Your task to perform on an android device: Go to privacy settings Image 0: 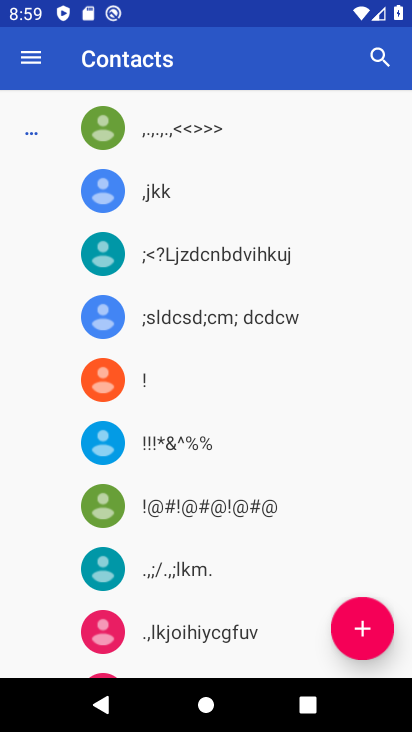
Step 0: press home button
Your task to perform on an android device: Go to privacy settings Image 1: 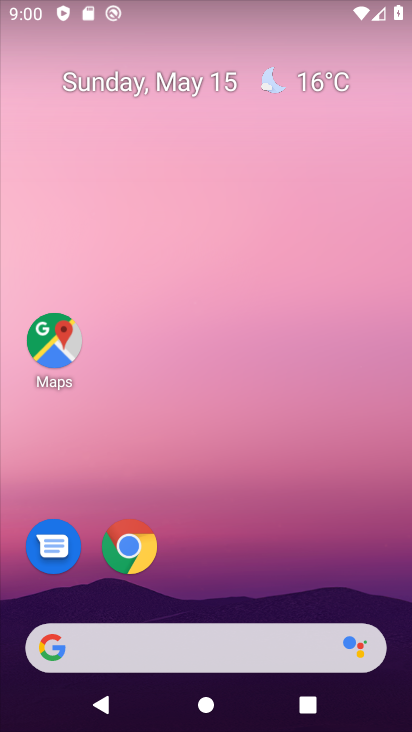
Step 1: drag from (221, 628) to (317, 178)
Your task to perform on an android device: Go to privacy settings Image 2: 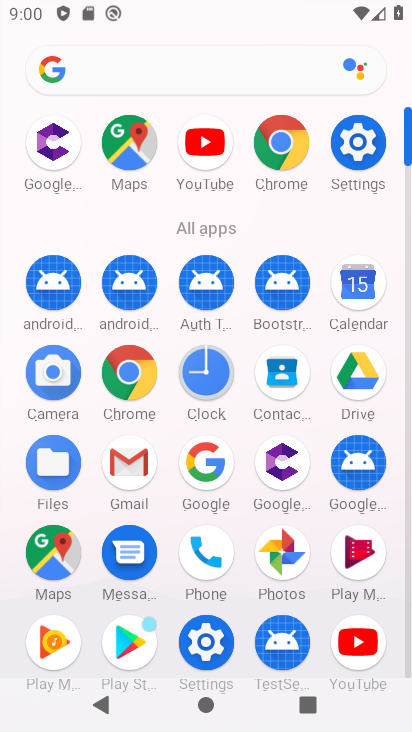
Step 2: click (127, 387)
Your task to perform on an android device: Go to privacy settings Image 3: 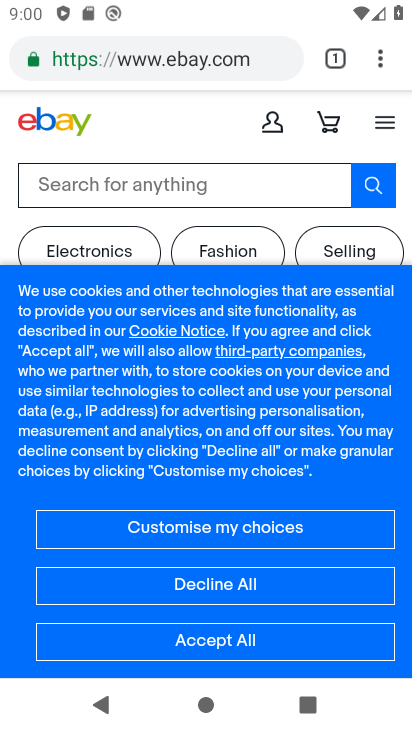
Step 3: drag from (383, 73) to (281, 584)
Your task to perform on an android device: Go to privacy settings Image 4: 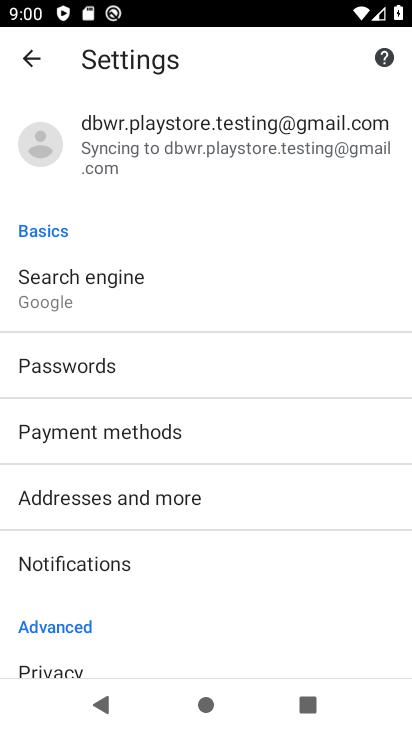
Step 4: drag from (160, 640) to (211, 416)
Your task to perform on an android device: Go to privacy settings Image 5: 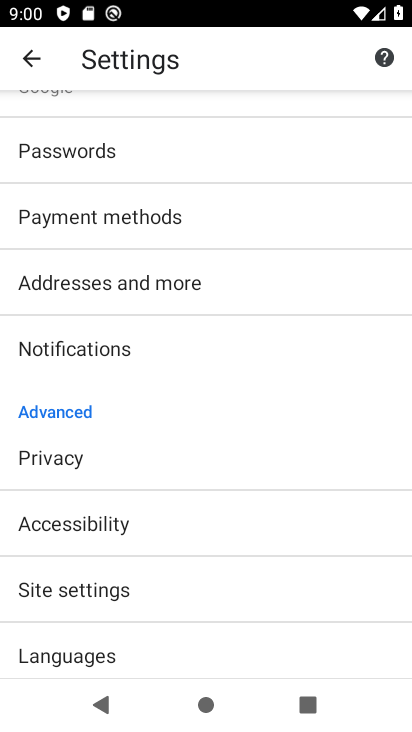
Step 5: click (106, 454)
Your task to perform on an android device: Go to privacy settings Image 6: 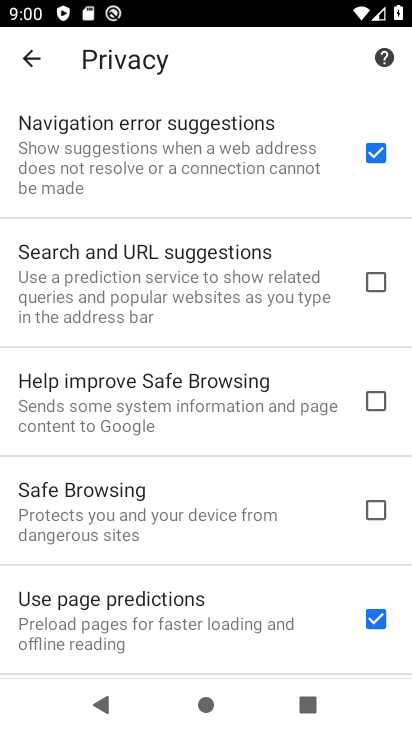
Step 6: task complete